Your task to perform on an android device: Go to Yahoo.com Image 0: 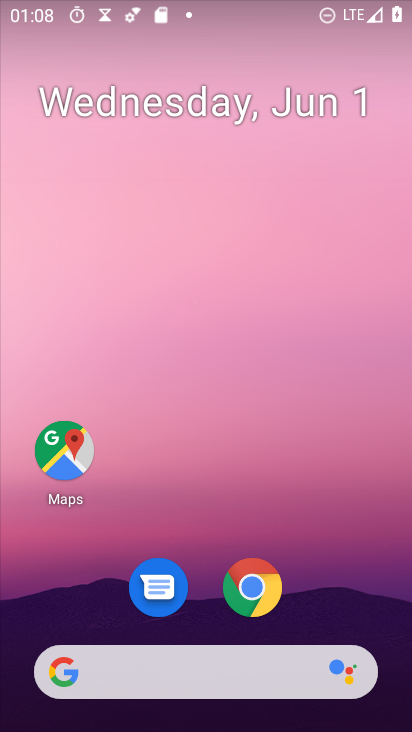
Step 0: click (262, 589)
Your task to perform on an android device: Go to Yahoo.com Image 1: 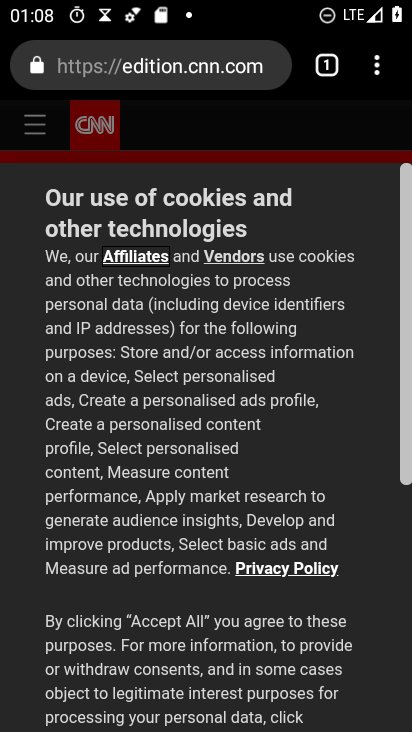
Step 1: click (199, 68)
Your task to perform on an android device: Go to Yahoo.com Image 2: 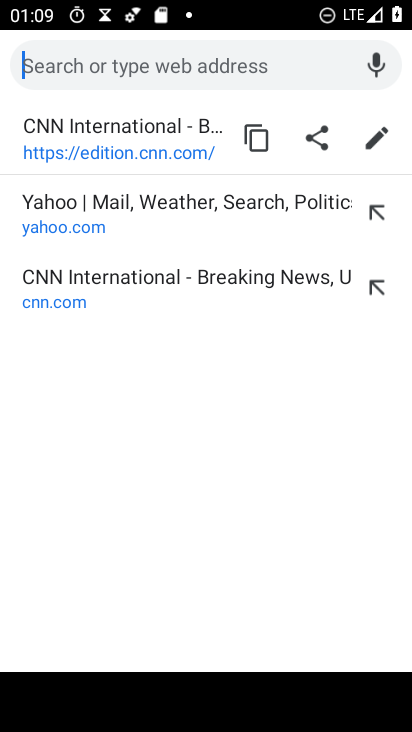
Step 2: type "Yahoo.com"
Your task to perform on an android device: Go to Yahoo.com Image 3: 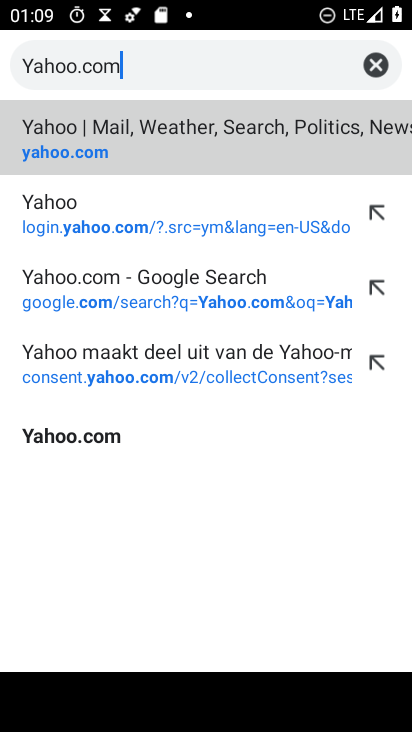
Step 3: click (285, 128)
Your task to perform on an android device: Go to Yahoo.com Image 4: 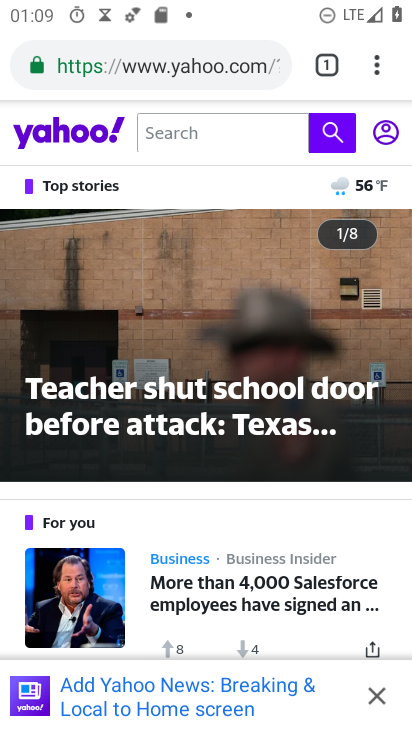
Step 4: task complete